Your task to perform on an android device: set the stopwatch Image 0: 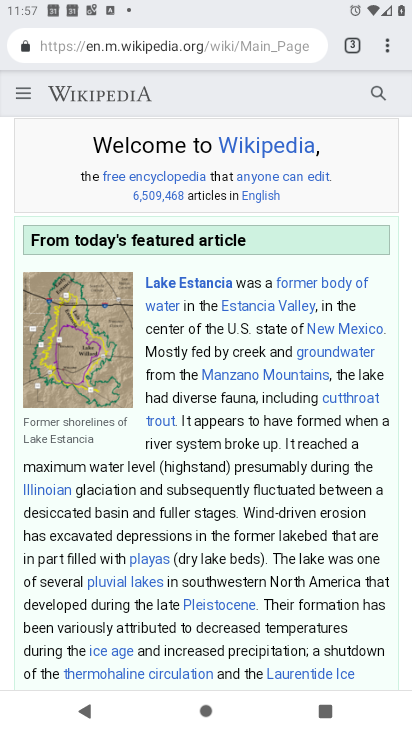
Step 0: press home button
Your task to perform on an android device: set the stopwatch Image 1: 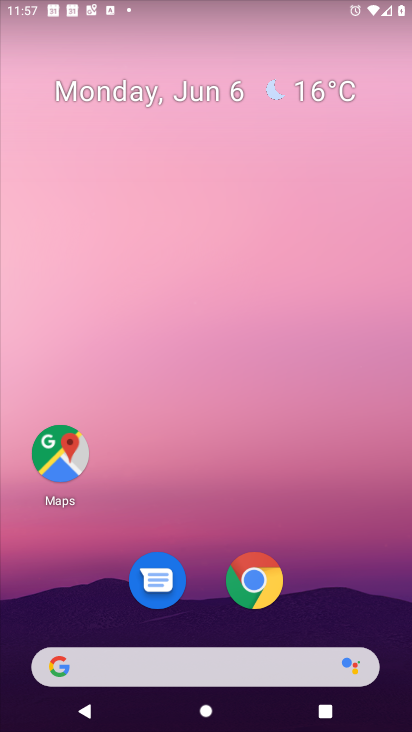
Step 1: drag from (355, 537) to (18, 301)
Your task to perform on an android device: set the stopwatch Image 2: 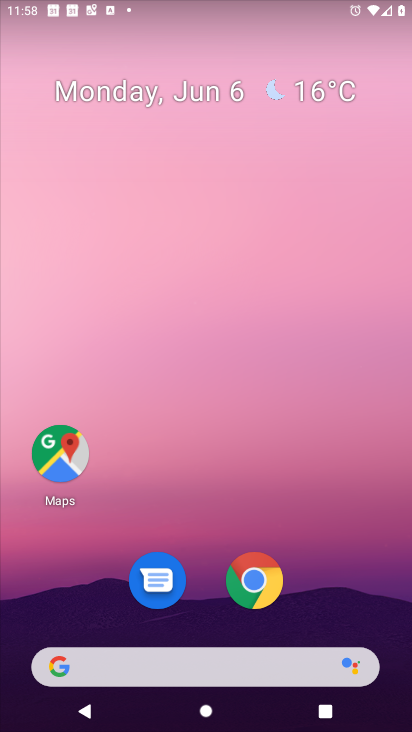
Step 2: drag from (312, 589) to (147, 10)
Your task to perform on an android device: set the stopwatch Image 3: 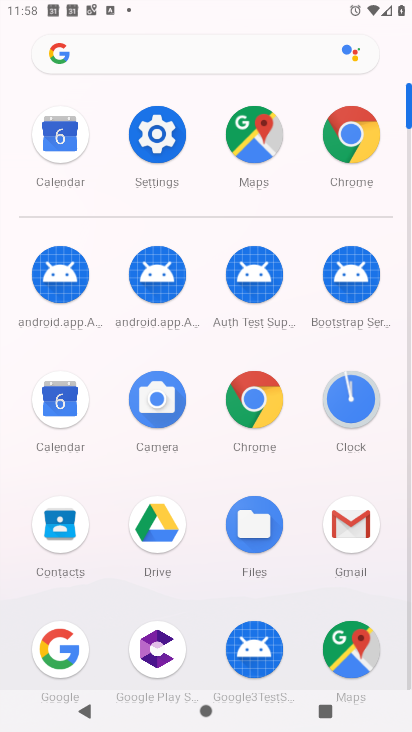
Step 3: click (358, 455)
Your task to perform on an android device: set the stopwatch Image 4: 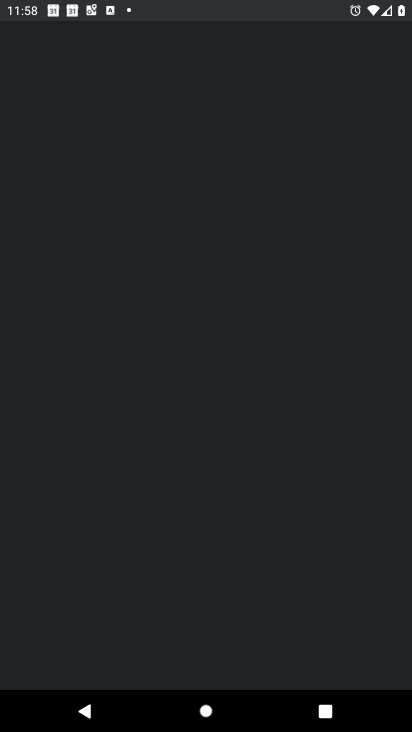
Step 4: click (345, 407)
Your task to perform on an android device: set the stopwatch Image 5: 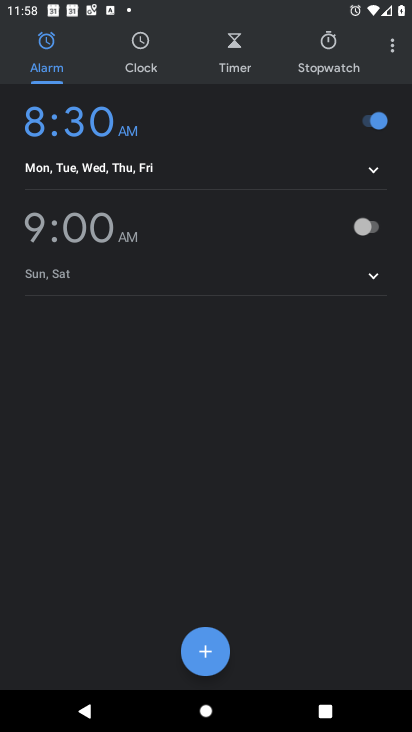
Step 5: click (327, 65)
Your task to perform on an android device: set the stopwatch Image 6: 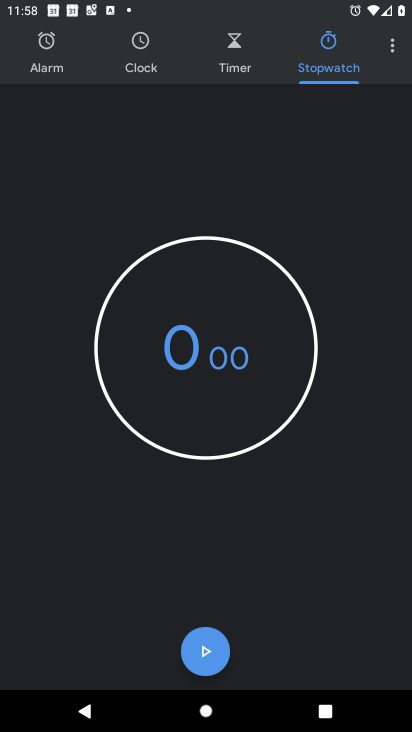
Step 6: task complete